Your task to perform on an android device: Open the web browser Image 0: 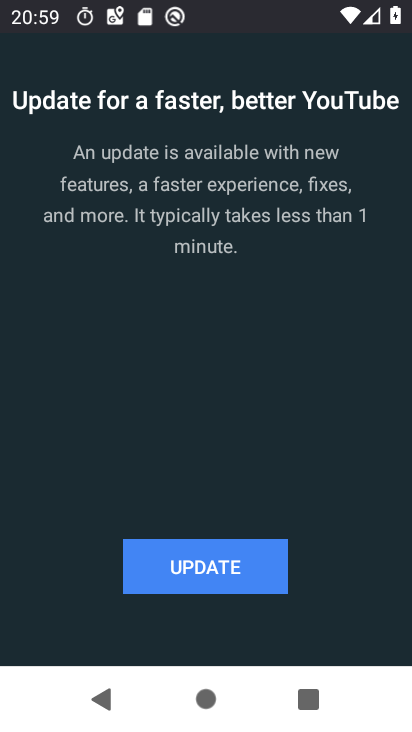
Step 0: press home button
Your task to perform on an android device: Open the web browser Image 1: 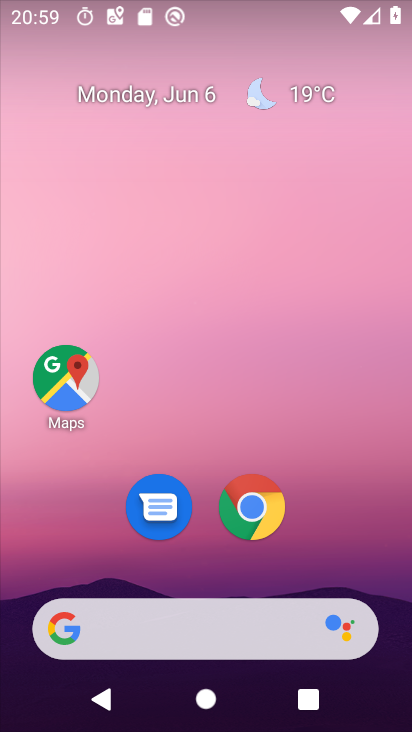
Step 1: click (248, 531)
Your task to perform on an android device: Open the web browser Image 2: 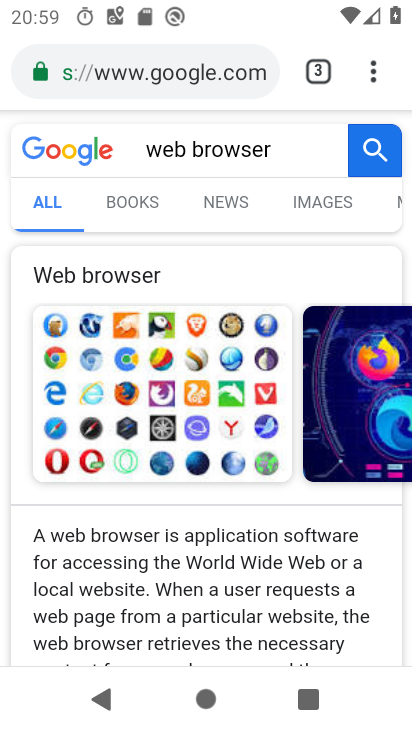
Step 2: click (188, 82)
Your task to perform on an android device: Open the web browser Image 3: 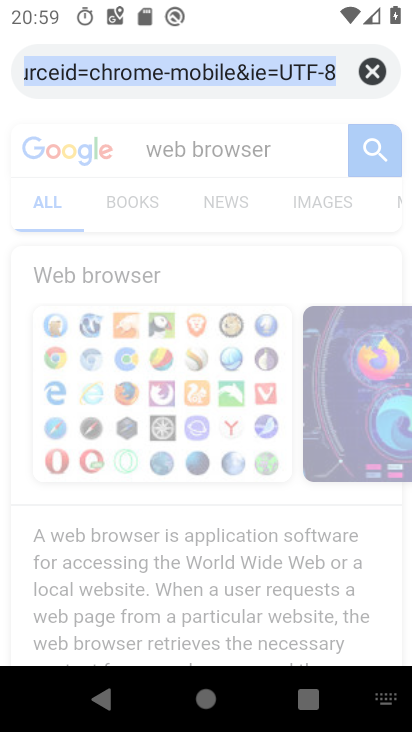
Step 3: task complete